Your task to perform on an android device: Open internet settings Image 0: 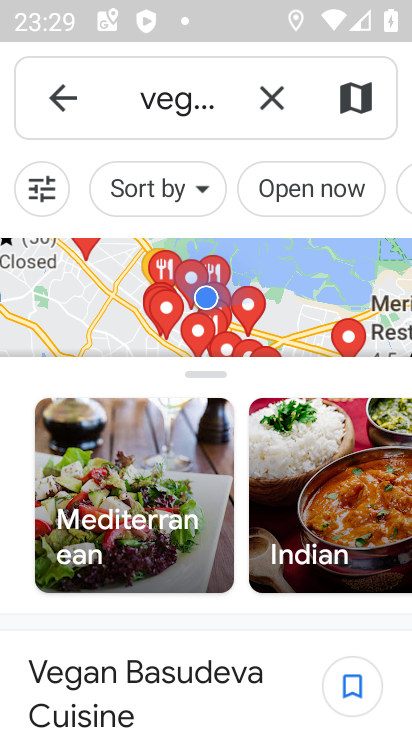
Step 0: press home button
Your task to perform on an android device: Open internet settings Image 1: 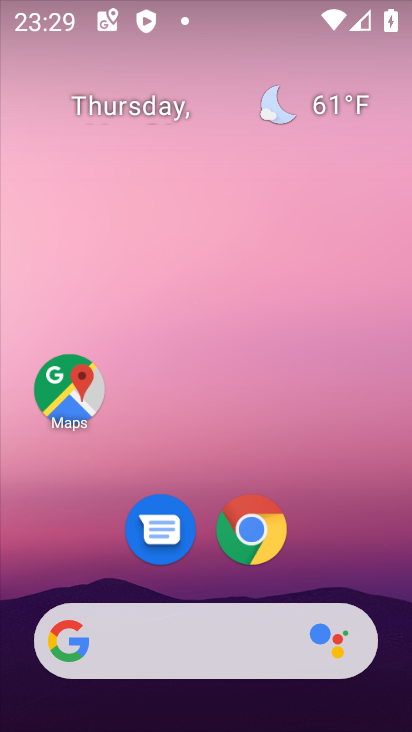
Step 1: drag from (344, 548) to (348, 74)
Your task to perform on an android device: Open internet settings Image 2: 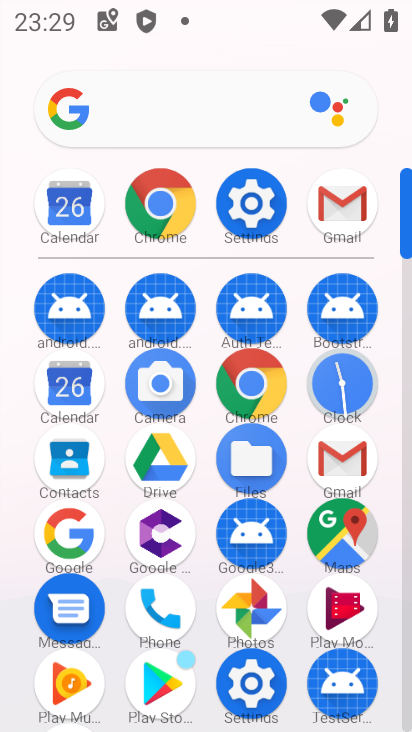
Step 2: click (256, 228)
Your task to perform on an android device: Open internet settings Image 3: 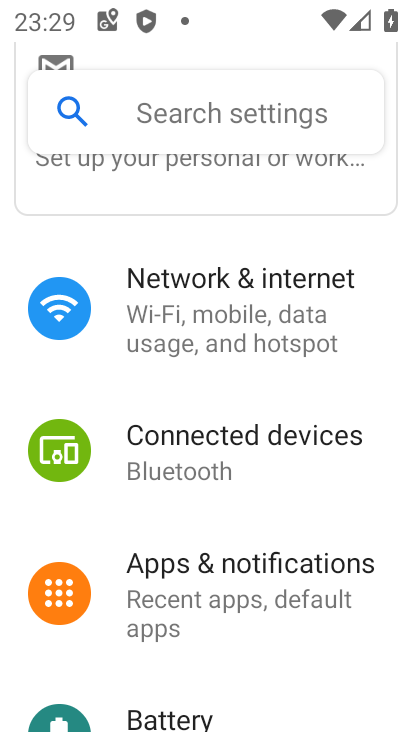
Step 3: click (239, 291)
Your task to perform on an android device: Open internet settings Image 4: 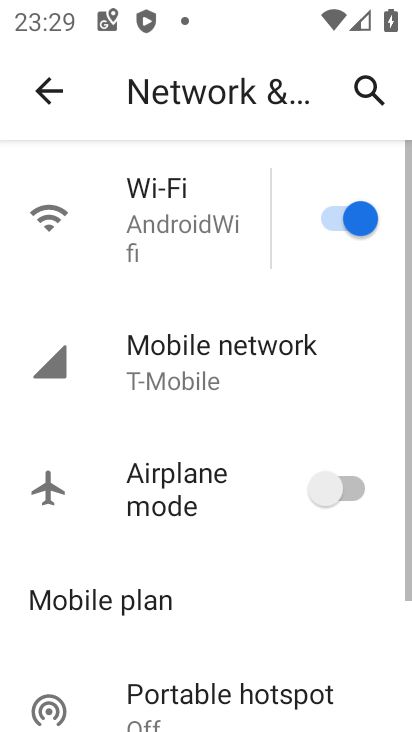
Step 4: task complete